Your task to perform on an android device: turn off picture-in-picture Image 0: 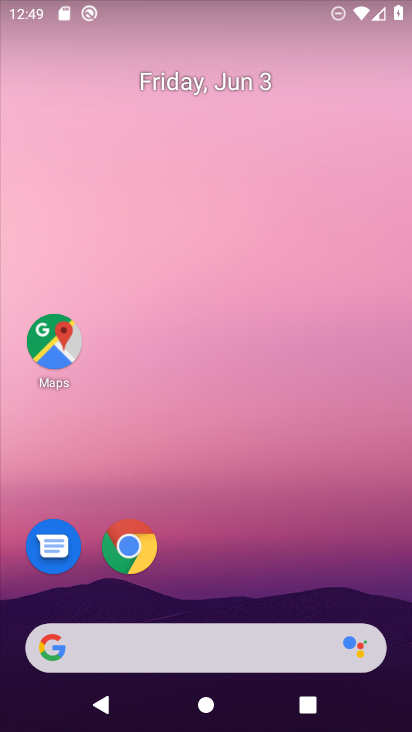
Step 0: click (129, 544)
Your task to perform on an android device: turn off picture-in-picture Image 1: 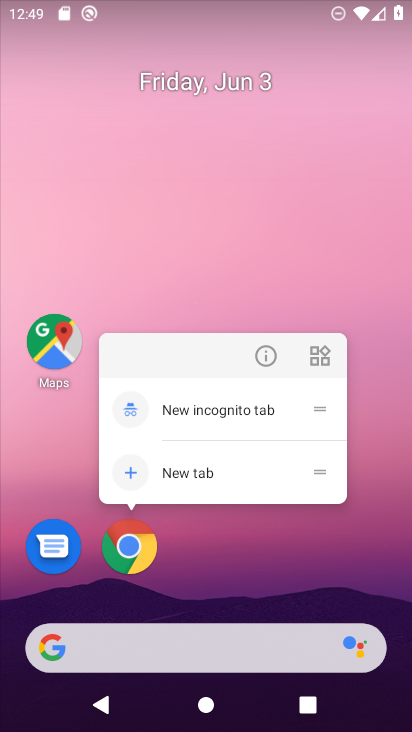
Step 1: click (267, 356)
Your task to perform on an android device: turn off picture-in-picture Image 2: 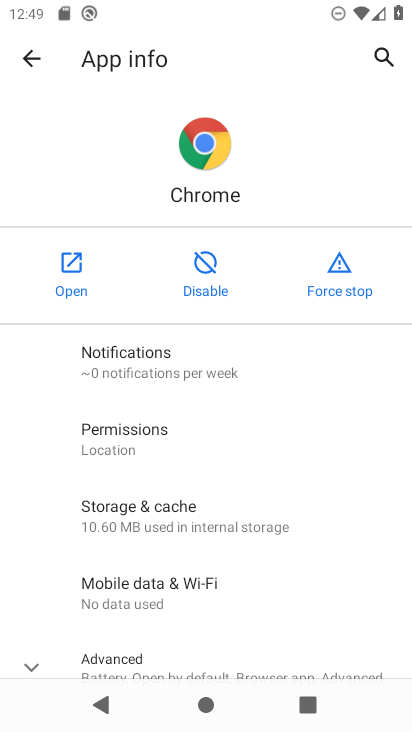
Step 2: drag from (132, 475) to (208, 375)
Your task to perform on an android device: turn off picture-in-picture Image 3: 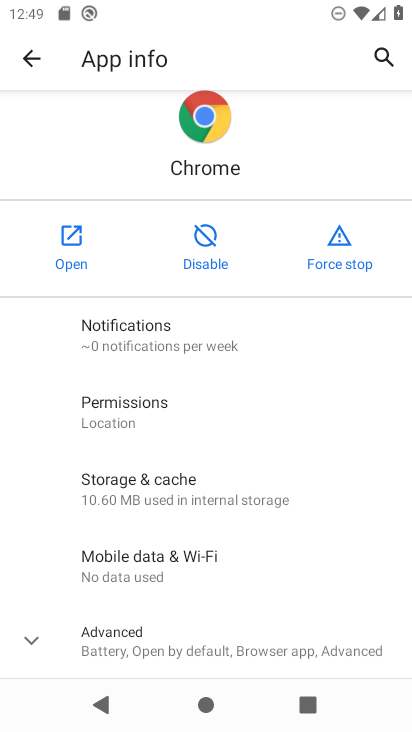
Step 3: click (165, 649)
Your task to perform on an android device: turn off picture-in-picture Image 4: 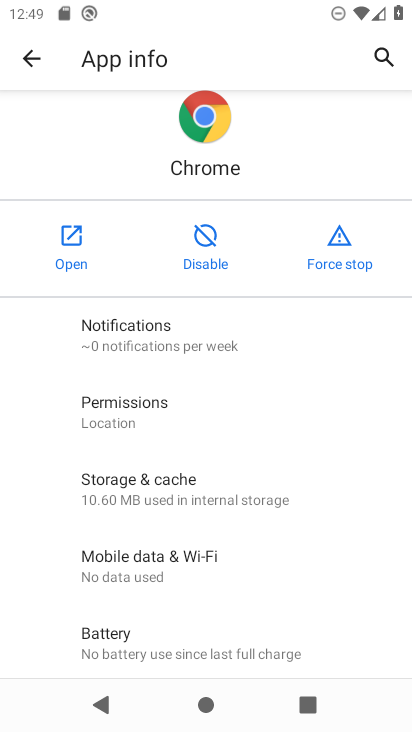
Step 4: drag from (154, 605) to (201, 519)
Your task to perform on an android device: turn off picture-in-picture Image 5: 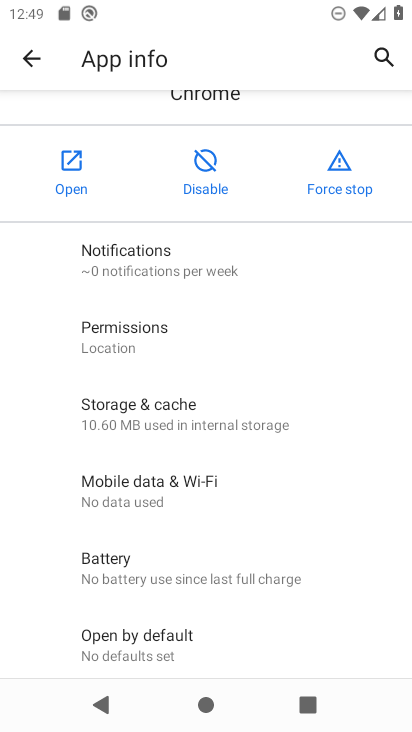
Step 5: drag from (128, 609) to (200, 525)
Your task to perform on an android device: turn off picture-in-picture Image 6: 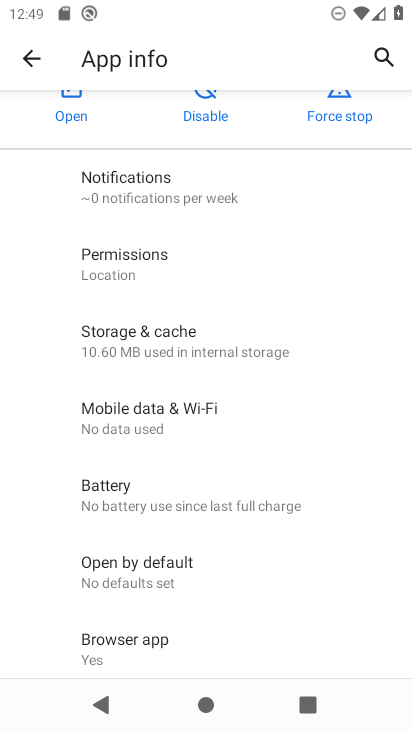
Step 6: drag from (135, 603) to (235, 499)
Your task to perform on an android device: turn off picture-in-picture Image 7: 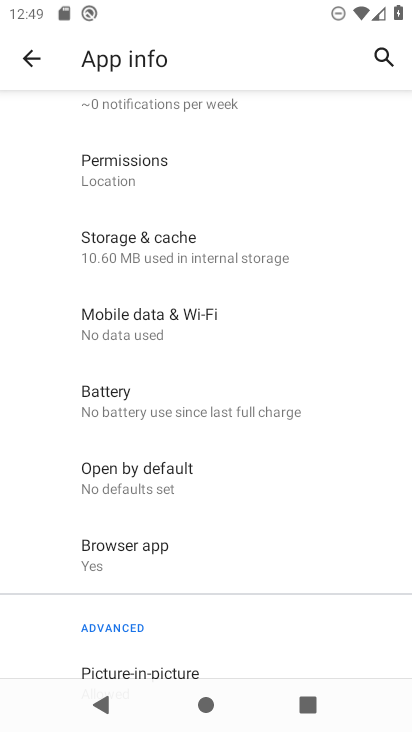
Step 7: drag from (134, 582) to (227, 484)
Your task to perform on an android device: turn off picture-in-picture Image 8: 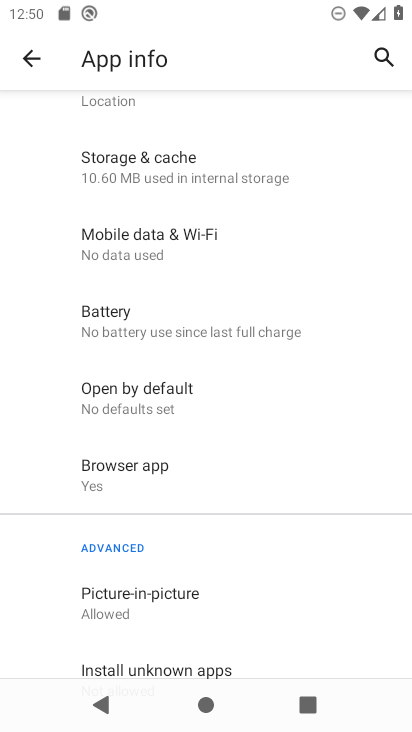
Step 8: click (144, 599)
Your task to perform on an android device: turn off picture-in-picture Image 9: 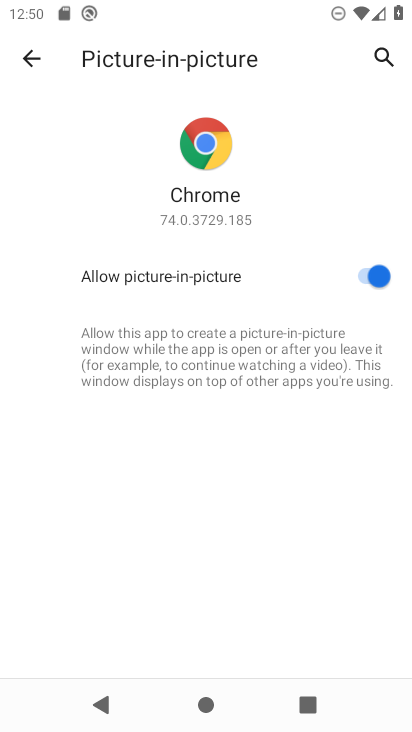
Step 9: click (366, 284)
Your task to perform on an android device: turn off picture-in-picture Image 10: 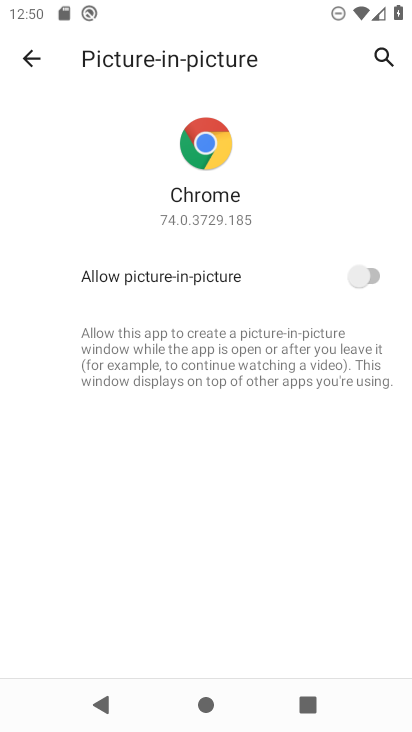
Step 10: task complete